Your task to perform on an android device: Go to Google maps Image 0: 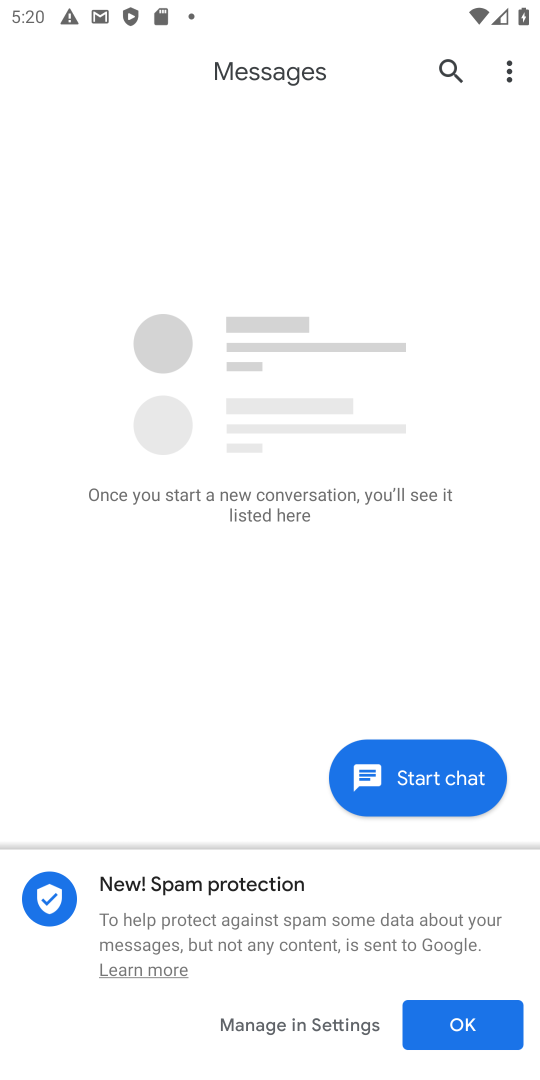
Step 0: press back button
Your task to perform on an android device: Go to Google maps Image 1: 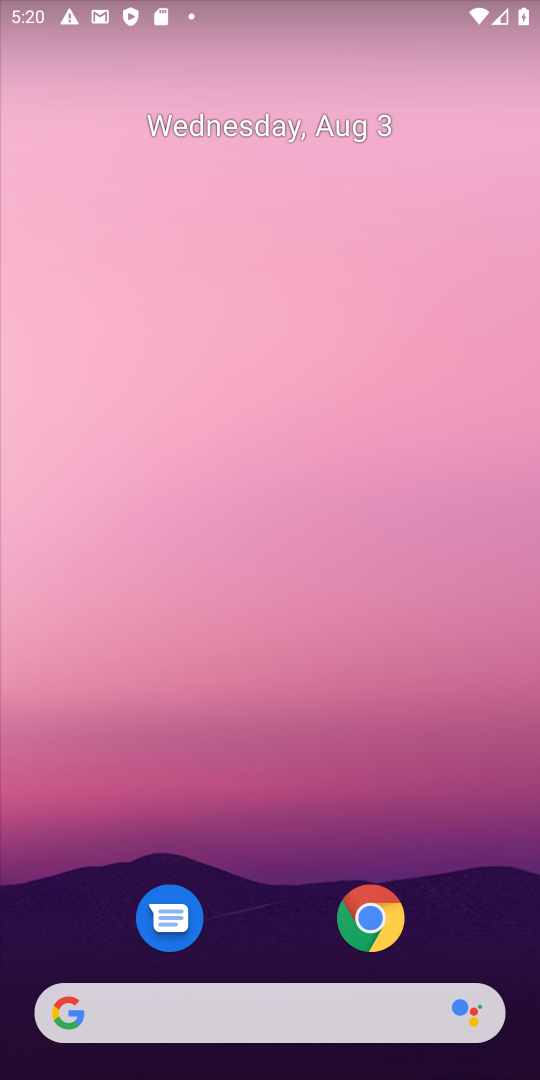
Step 1: drag from (303, 985) to (317, 230)
Your task to perform on an android device: Go to Google maps Image 2: 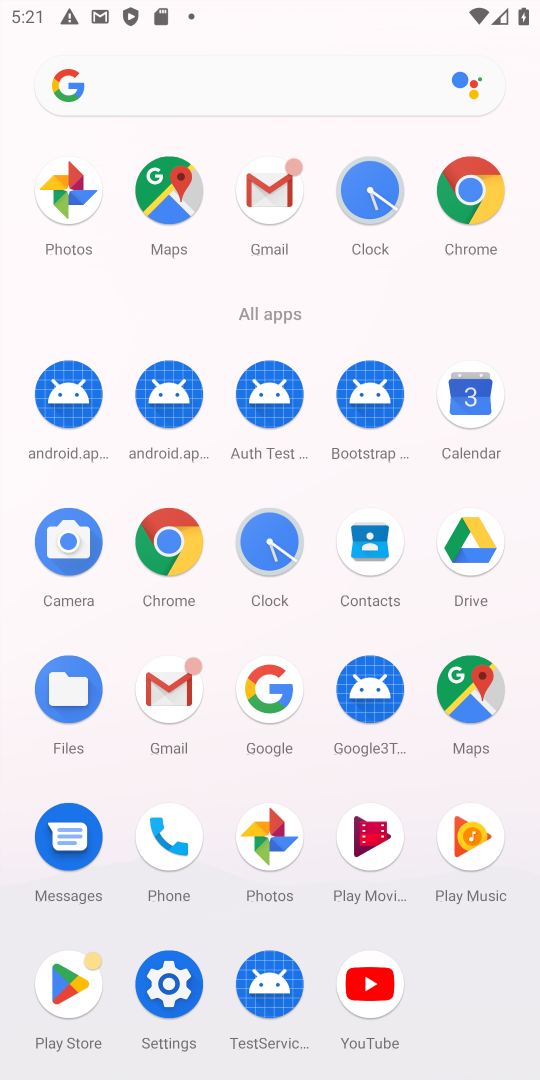
Step 2: click (471, 689)
Your task to perform on an android device: Go to Google maps Image 3: 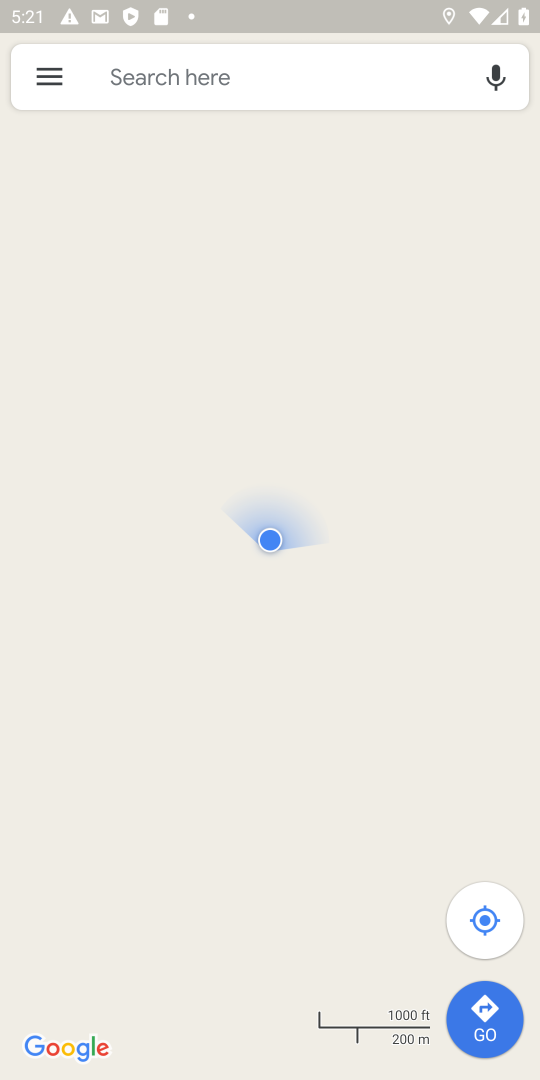
Step 3: task complete